Your task to perform on an android device: turn off improve location accuracy Image 0: 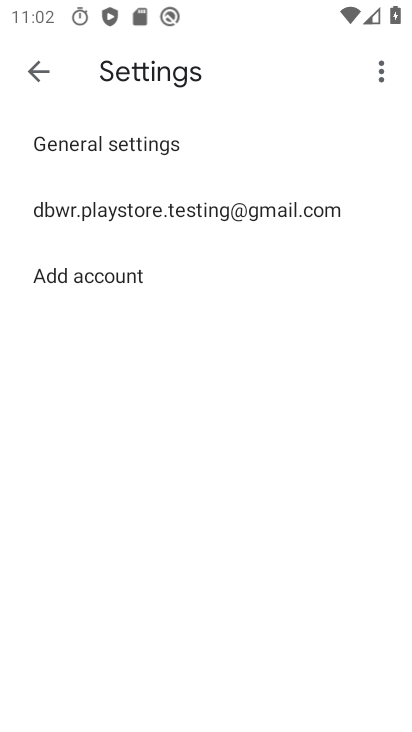
Step 0: press home button
Your task to perform on an android device: turn off improve location accuracy Image 1: 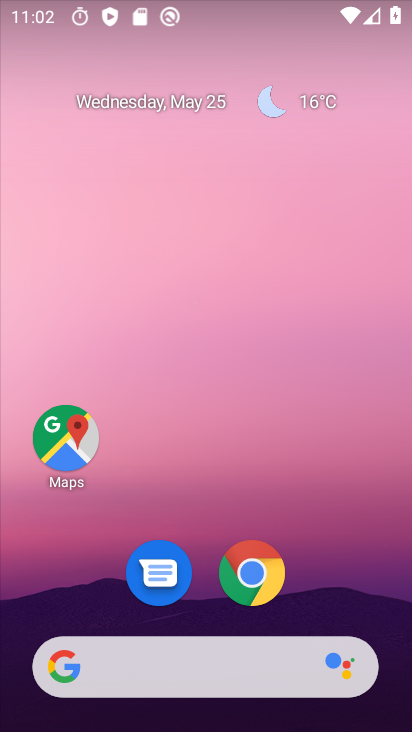
Step 1: drag from (365, 633) to (355, 7)
Your task to perform on an android device: turn off improve location accuracy Image 2: 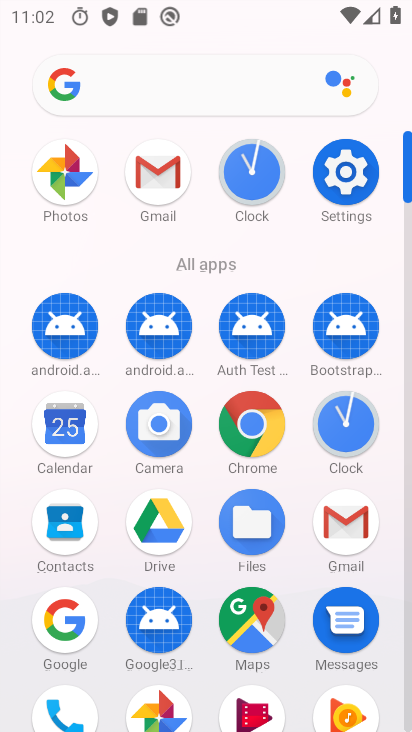
Step 2: click (344, 170)
Your task to perform on an android device: turn off improve location accuracy Image 3: 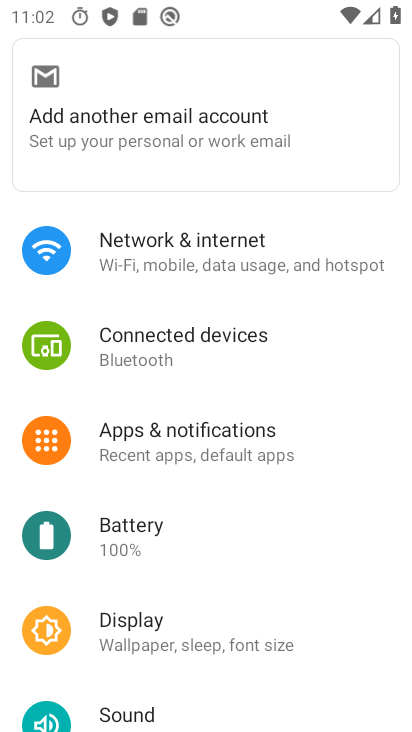
Step 3: drag from (280, 536) to (309, 222)
Your task to perform on an android device: turn off improve location accuracy Image 4: 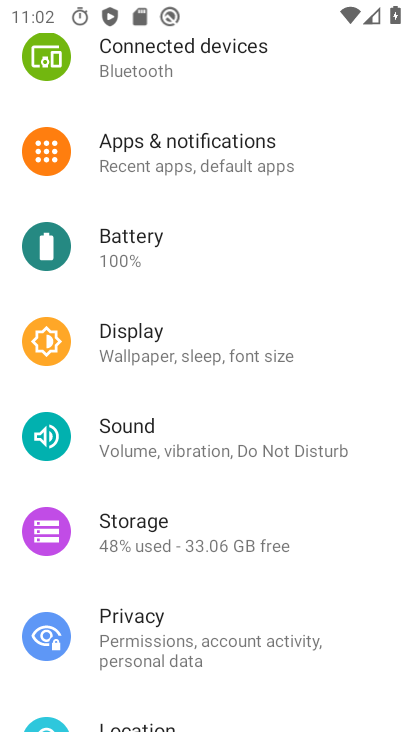
Step 4: drag from (316, 477) to (319, 216)
Your task to perform on an android device: turn off improve location accuracy Image 5: 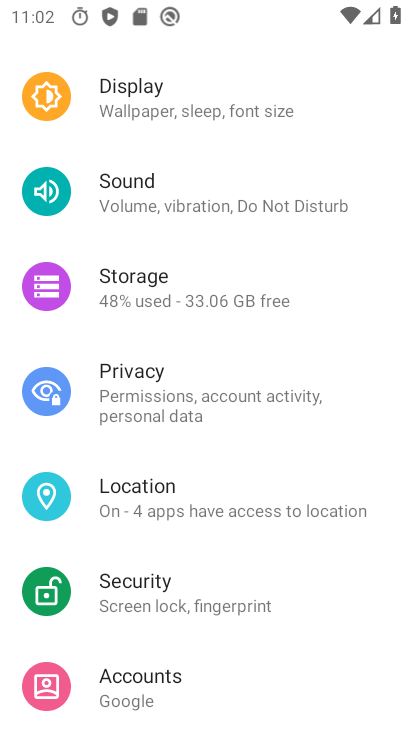
Step 5: click (137, 506)
Your task to perform on an android device: turn off improve location accuracy Image 6: 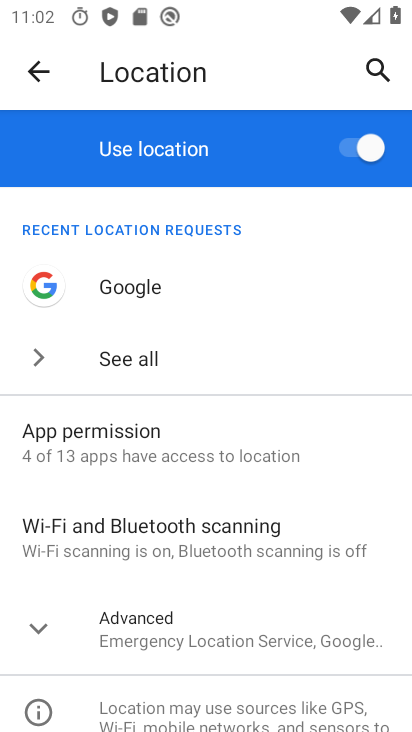
Step 6: click (40, 630)
Your task to perform on an android device: turn off improve location accuracy Image 7: 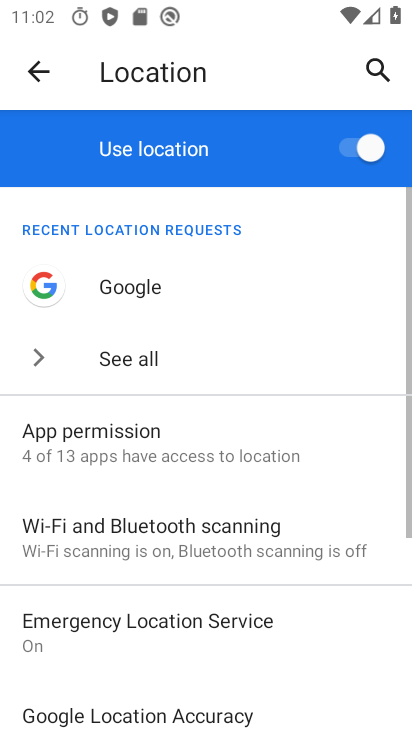
Step 7: drag from (165, 612) to (168, 234)
Your task to perform on an android device: turn off improve location accuracy Image 8: 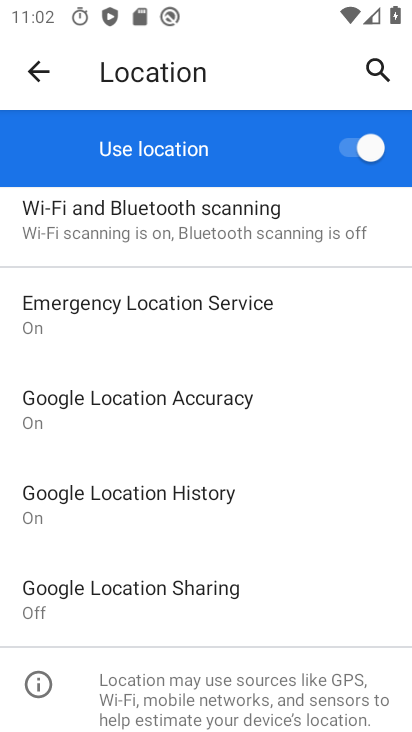
Step 8: click (125, 381)
Your task to perform on an android device: turn off improve location accuracy Image 9: 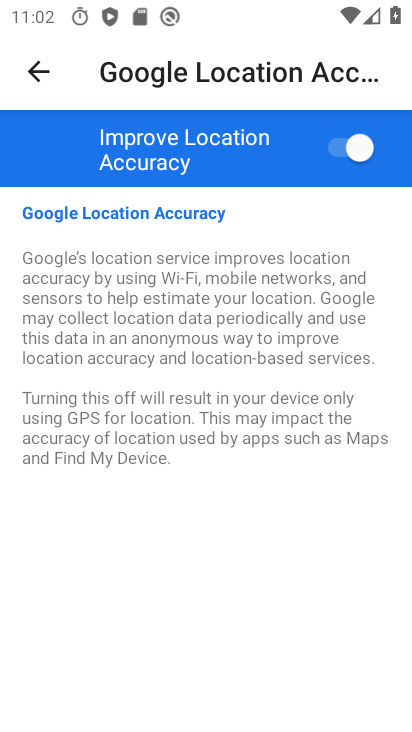
Step 9: click (344, 160)
Your task to perform on an android device: turn off improve location accuracy Image 10: 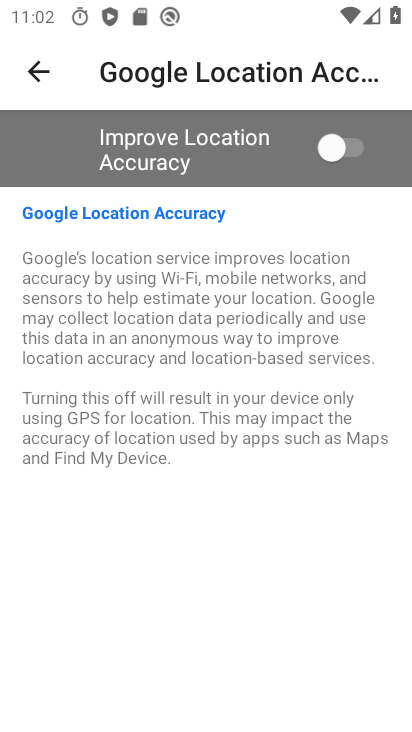
Step 10: task complete